Your task to perform on an android device: Turn on the flashlight Image 0: 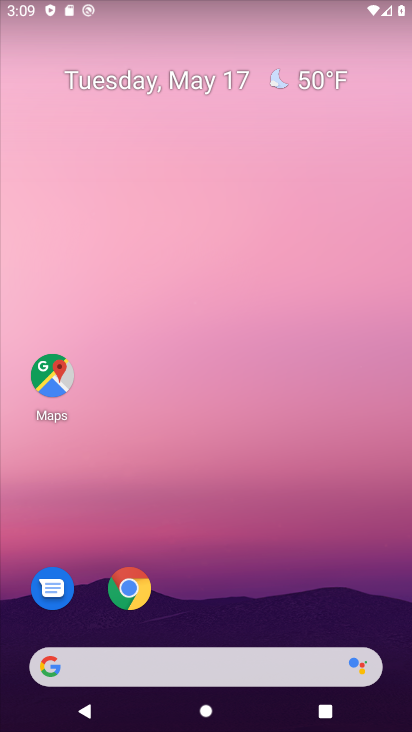
Step 0: drag from (268, 129) to (200, 457)
Your task to perform on an android device: Turn on the flashlight Image 1: 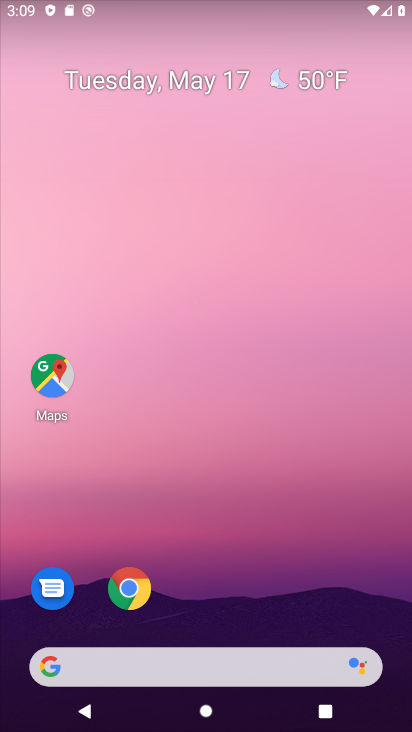
Step 1: task complete